Your task to perform on an android device: turn off picture-in-picture Image 0: 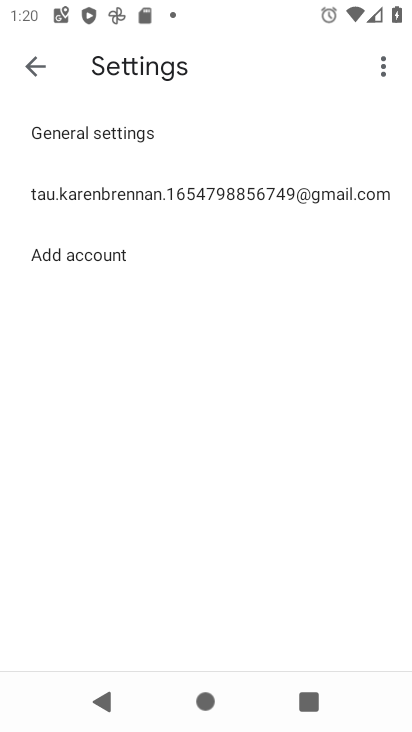
Step 0: press home button
Your task to perform on an android device: turn off picture-in-picture Image 1: 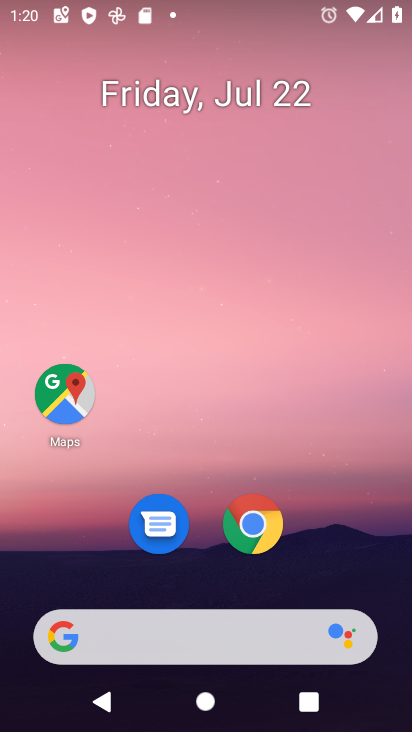
Step 1: click (259, 514)
Your task to perform on an android device: turn off picture-in-picture Image 2: 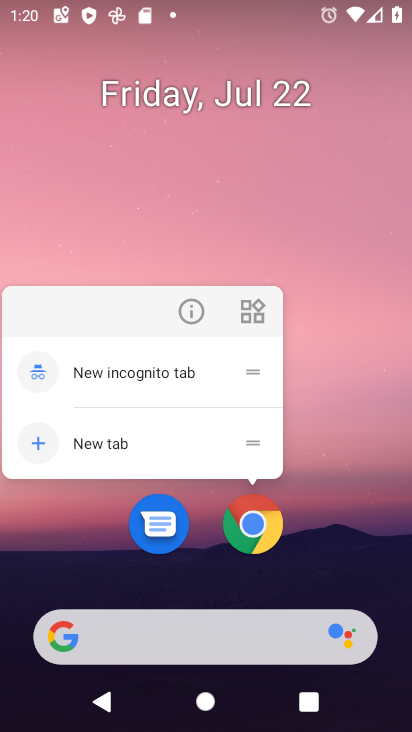
Step 2: click (188, 309)
Your task to perform on an android device: turn off picture-in-picture Image 3: 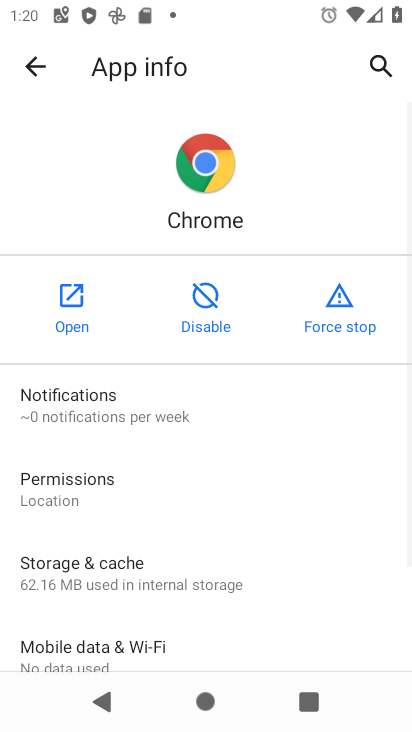
Step 3: drag from (203, 561) to (344, 53)
Your task to perform on an android device: turn off picture-in-picture Image 4: 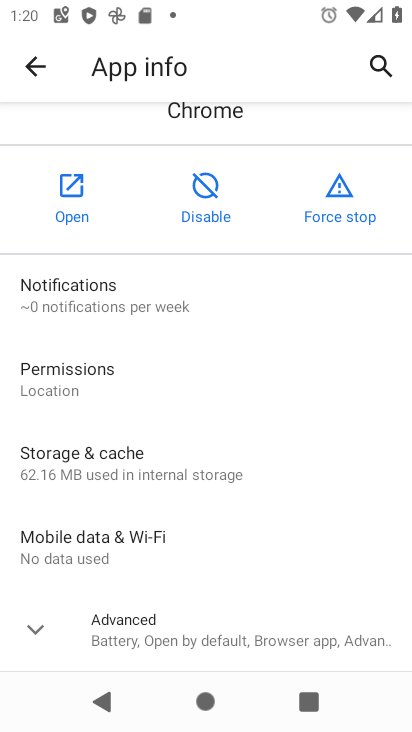
Step 4: drag from (234, 614) to (388, 24)
Your task to perform on an android device: turn off picture-in-picture Image 5: 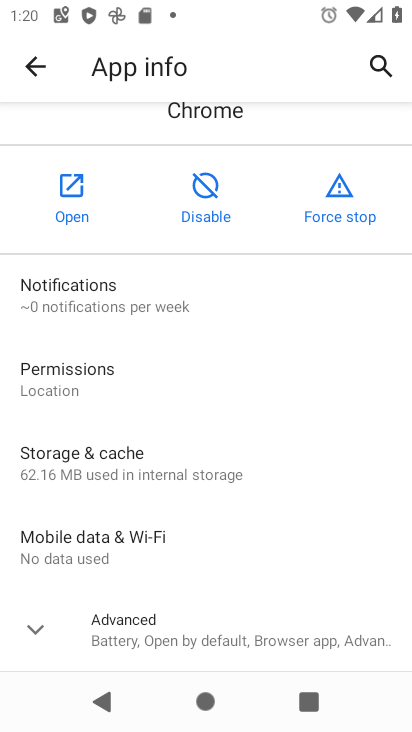
Step 5: click (115, 642)
Your task to perform on an android device: turn off picture-in-picture Image 6: 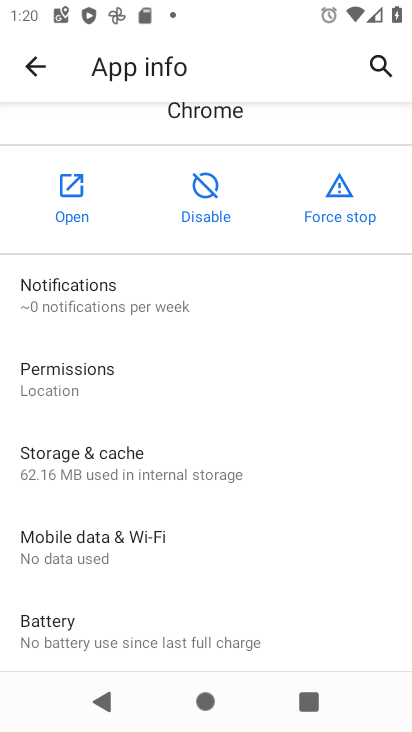
Step 6: drag from (224, 557) to (411, 102)
Your task to perform on an android device: turn off picture-in-picture Image 7: 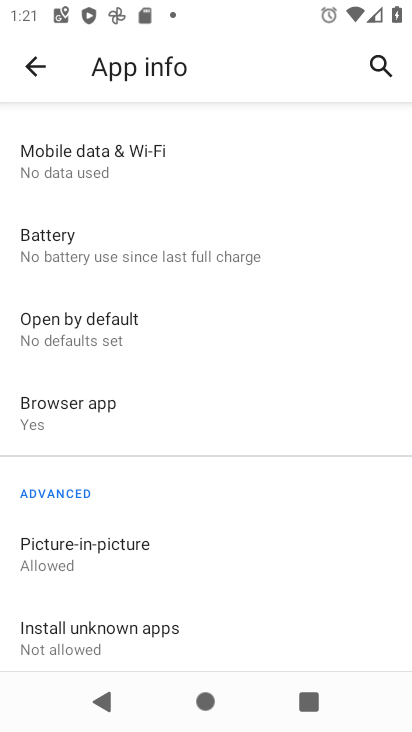
Step 7: click (94, 560)
Your task to perform on an android device: turn off picture-in-picture Image 8: 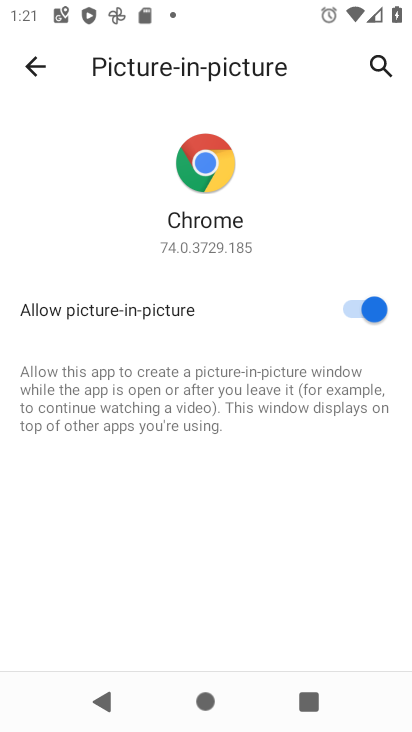
Step 8: click (354, 312)
Your task to perform on an android device: turn off picture-in-picture Image 9: 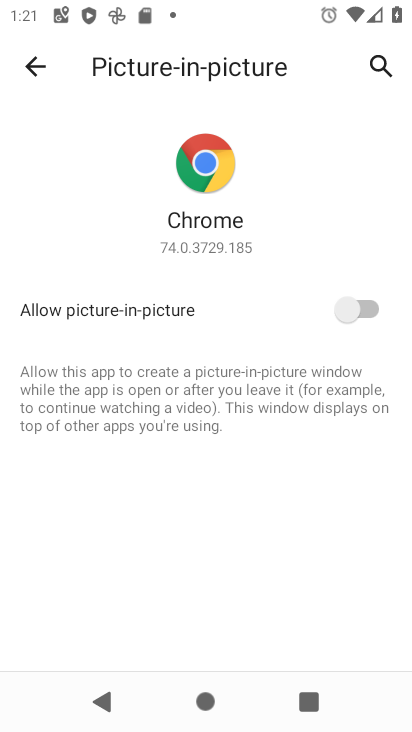
Step 9: task complete